Your task to perform on an android device: turn off picture-in-picture Image 0: 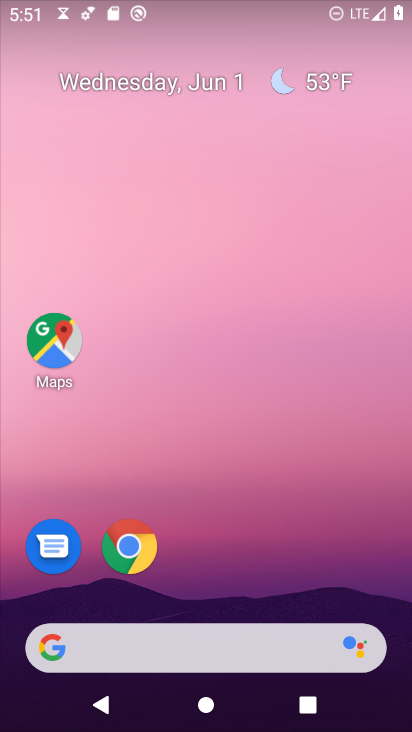
Step 0: drag from (282, 508) to (235, 9)
Your task to perform on an android device: turn off picture-in-picture Image 1: 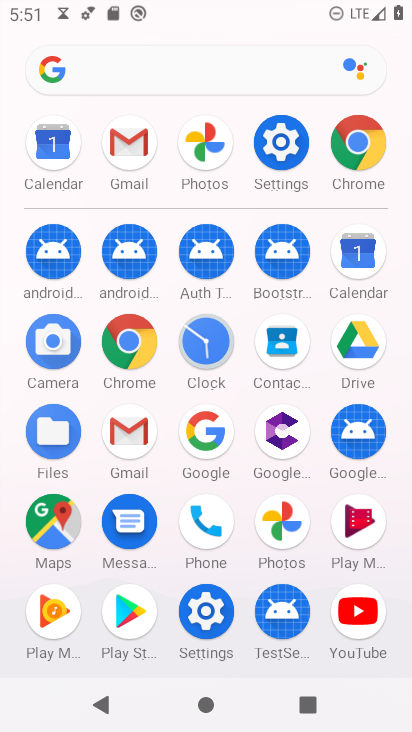
Step 1: drag from (4, 601) to (12, 336)
Your task to perform on an android device: turn off picture-in-picture Image 2: 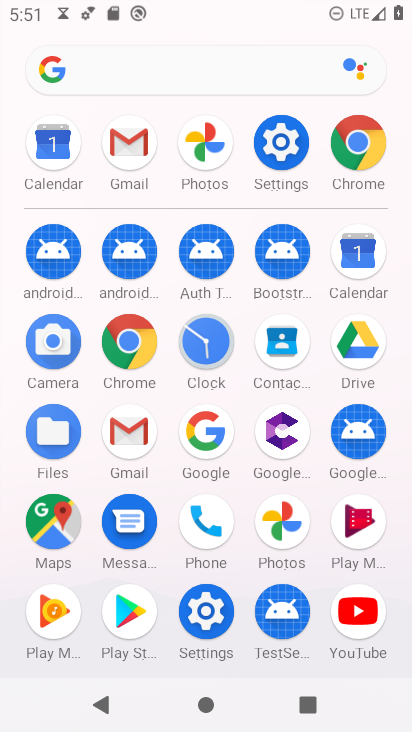
Step 2: click (210, 608)
Your task to perform on an android device: turn off picture-in-picture Image 3: 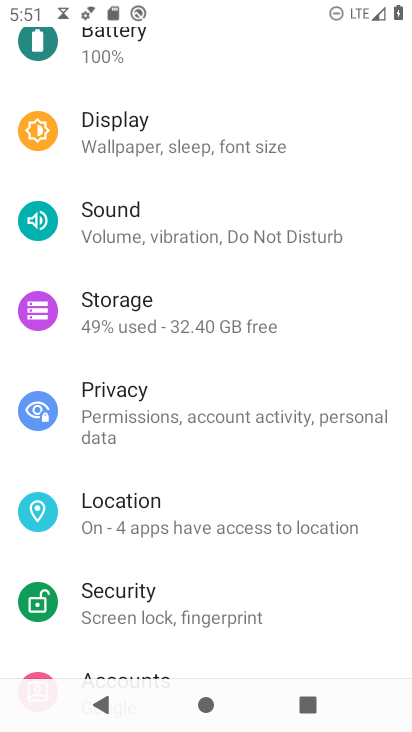
Step 3: drag from (248, 592) to (266, 170)
Your task to perform on an android device: turn off picture-in-picture Image 4: 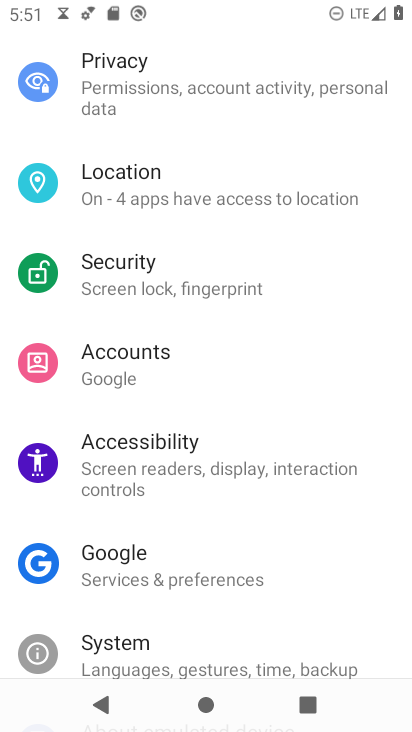
Step 4: drag from (266, 581) to (295, 150)
Your task to perform on an android device: turn off picture-in-picture Image 5: 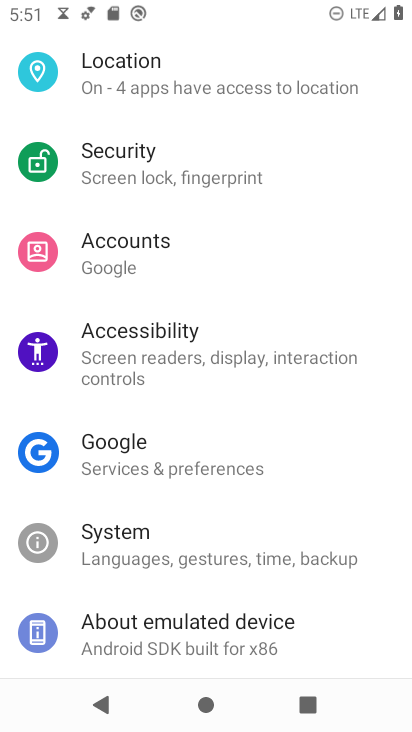
Step 5: drag from (176, 125) to (203, 528)
Your task to perform on an android device: turn off picture-in-picture Image 6: 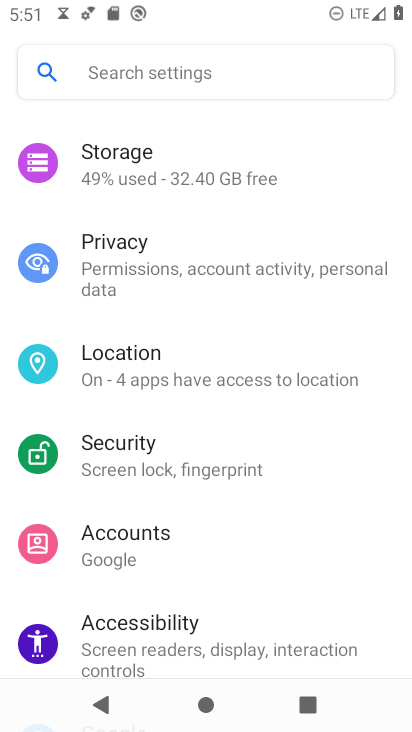
Step 6: drag from (214, 246) to (222, 512)
Your task to perform on an android device: turn off picture-in-picture Image 7: 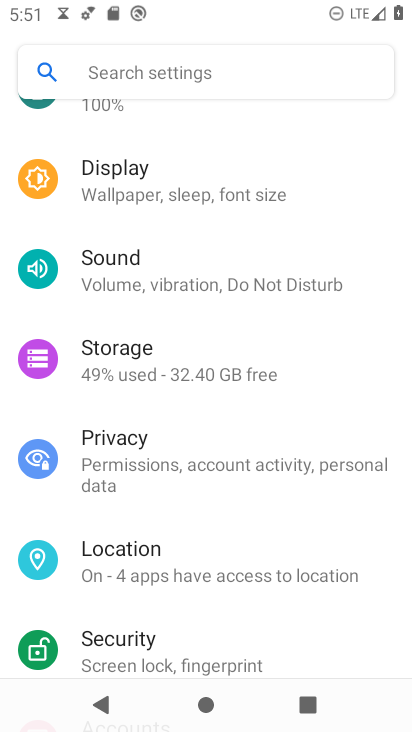
Step 7: drag from (194, 241) to (202, 533)
Your task to perform on an android device: turn off picture-in-picture Image 8: 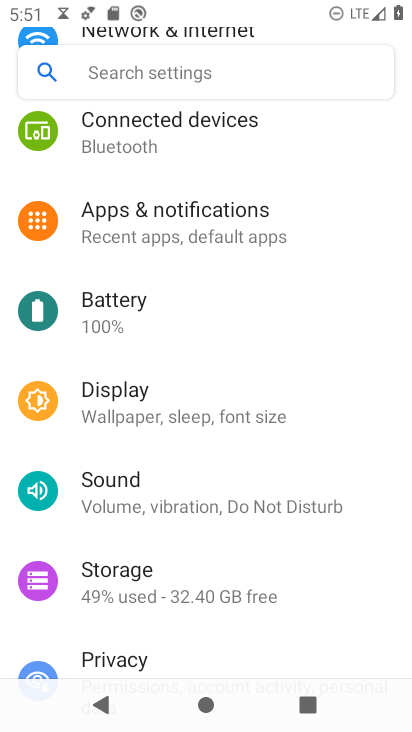
Step 8: click (176, 204)
Your task to perform on an android device: turn off picture-in-picture Image 9: 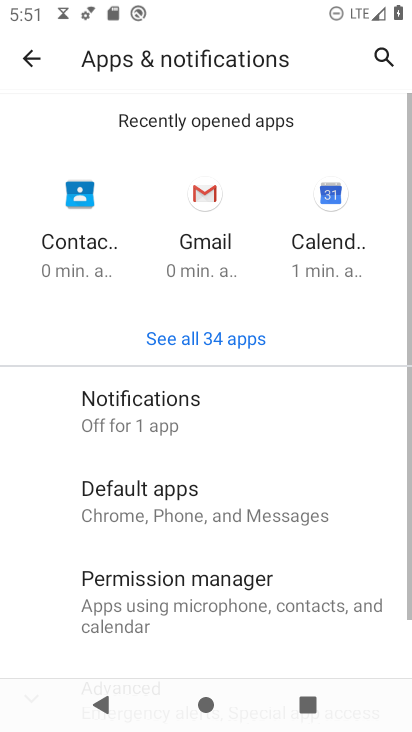
Step 9: click (203, 417)
Your task to perform on an android device: turn off picture-in-picture Image 10: 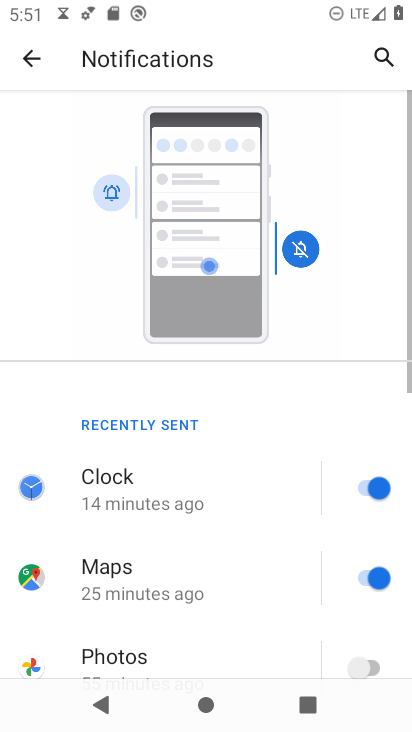
Step 10: drag from (226, 549) to (213, 136)
Your task to perform on an android device: turn off picture-in-picture Image 11: 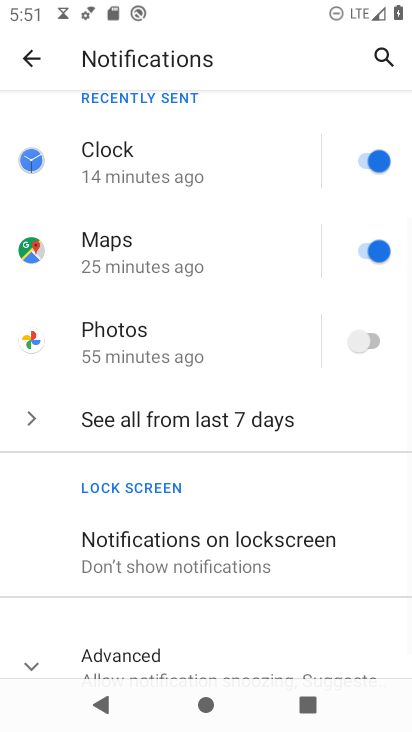
Step 11: drag from (222, 535) to (247, 175)
Your task to perform on an android device: turn off picture-in-picture Image 12: 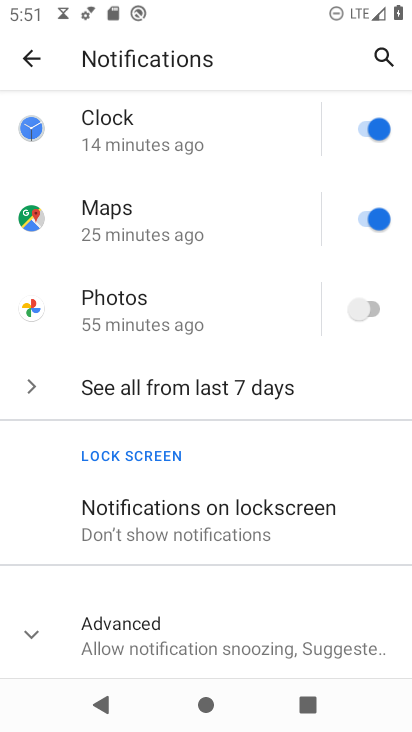
Step 12: click (92, 650)
Your task to perform on an android device: turn off picture-in-picture Image 13: 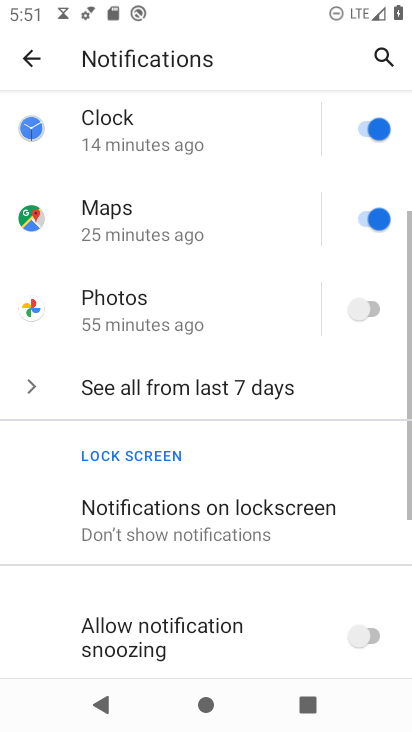
Step 13: drag from (218, 637) to (240, 207)
Your task to perform on an android device: turn off picture-in-picture Image 14: 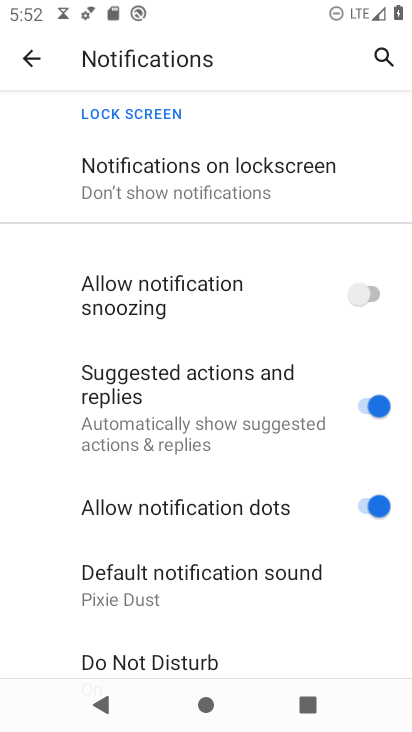
Step 14: drag from (253, 592) to (245, 241)
Your task to perform on an android device: turn off picture-in-picture Image 15: 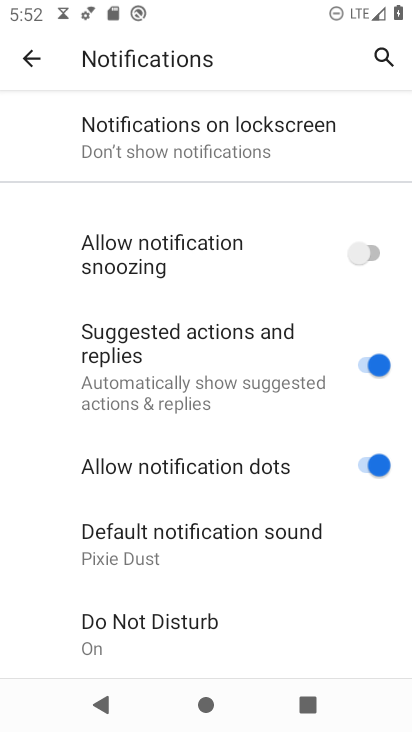
Step 15: drag from (214, 214) to (173, 716)
Your task to perform on an android device: turn off picture-in-picture Image 16: 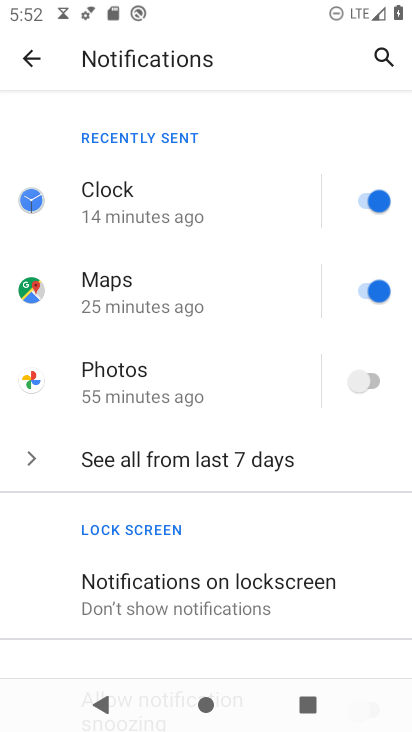
Step 16: drag from (221, 518) to (224, 82)
Your task to perform on an android device: turn off picture-in-picture Image 17: 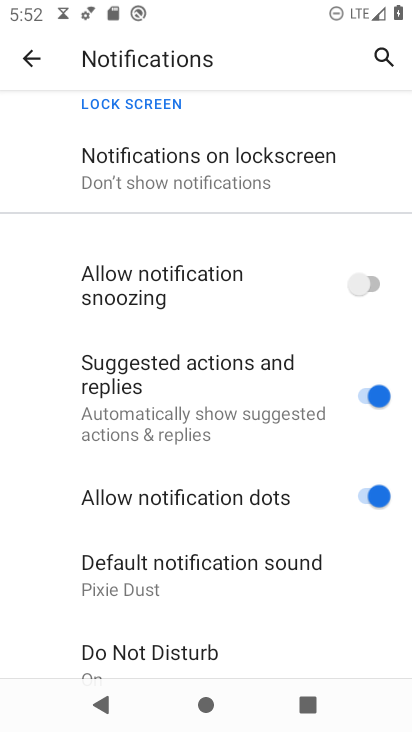
Step 17: drag from (196, 643) to (183, 211)
Your task to perform on an android device: turn off picture-in-picture Image 18: 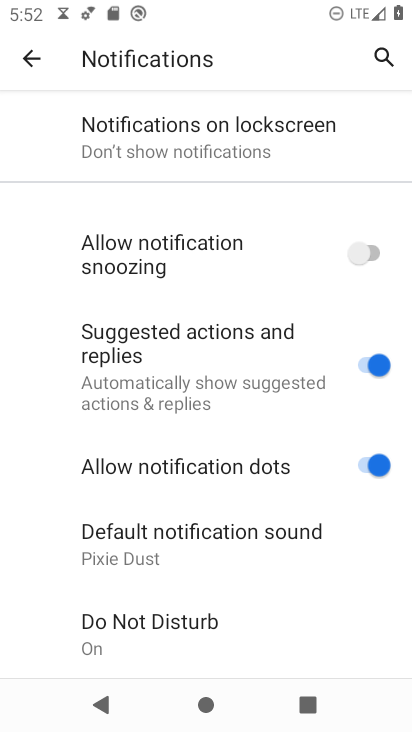
Step 18: drag from (171, 215) to (200, 242)
Your task to perform on an android device: turn off picture-in-picture Image 19: 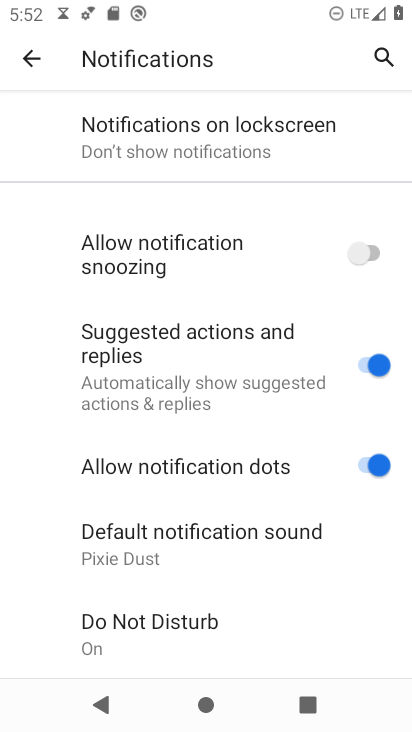
Step 19: click (41, 61)
Your task to perform on an android device: turn off picture-in-picture Image 20: 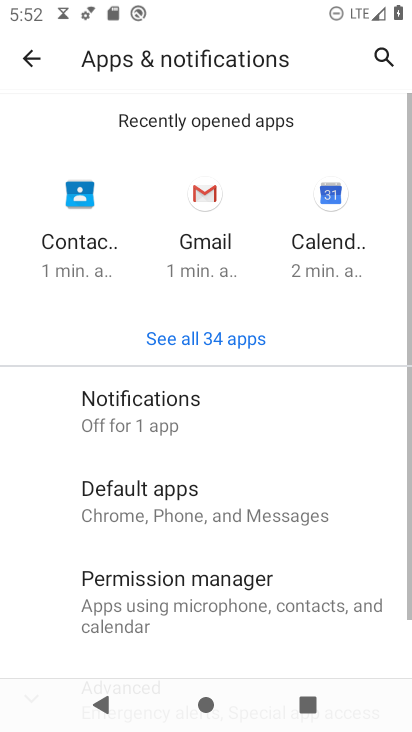
Step 20: drag from (283, 624) to (284, 295)
Your task to perform on an android device: turn off picture-in-picture Image 21: 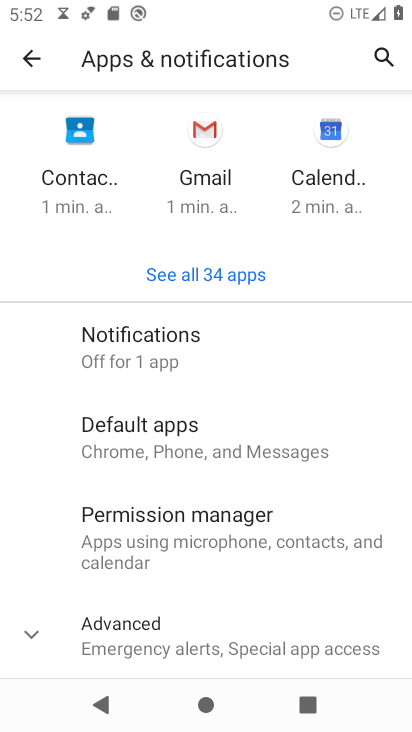
Step 21: click (133, 614)
Your task to perform on an android device: turn off picture-in-picture Image 22: 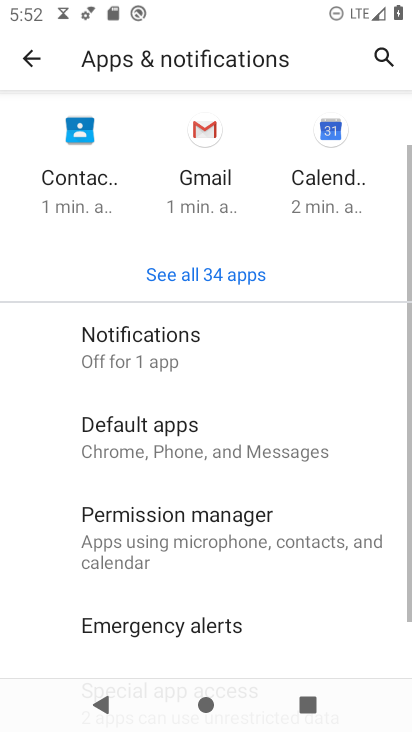
Step 22: drag from (269, 240) to (263, 200)
Your task to perform on an android device: turn off picture-in-picture Image 23: 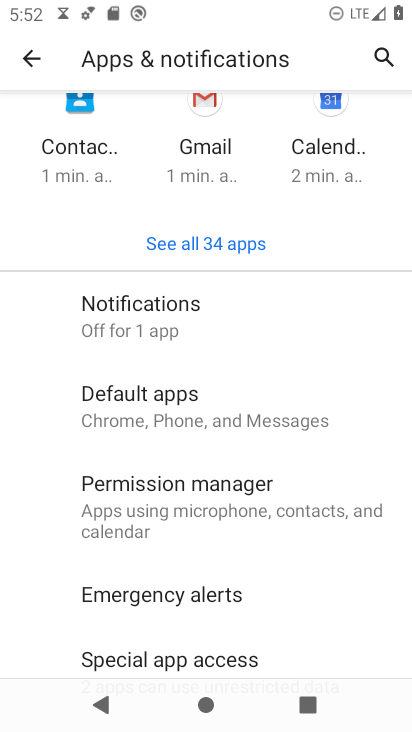
Step 23: drag from (277, 662) to (284, 257)
Your task to perform on an android device: turn off picture-in-picture Image 24: 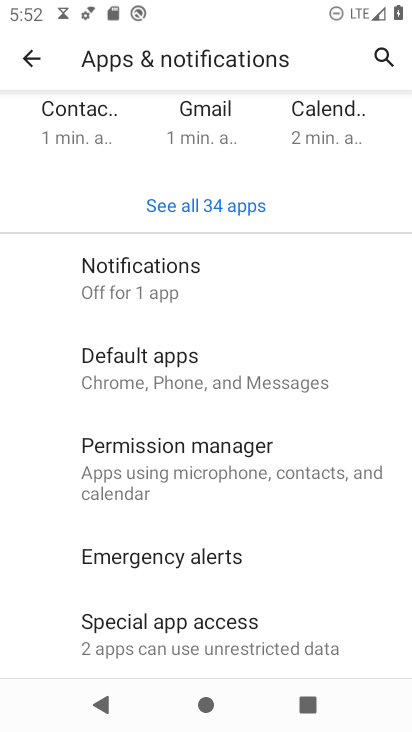
Step 24: click (234, 615)
Your task to perform on an android device: turn off picture-in-picture Image 25: 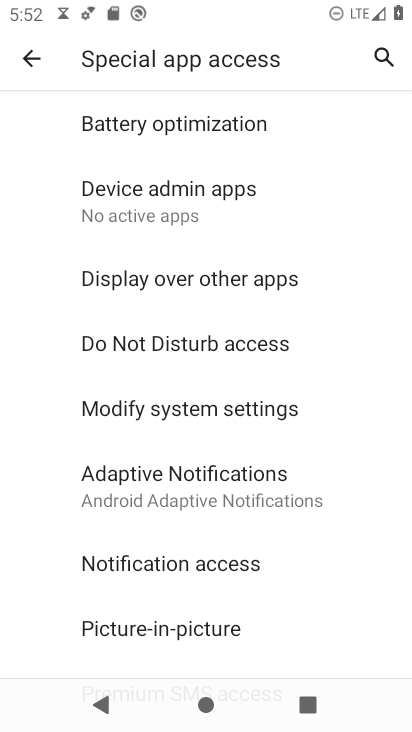
Step 25: drag from (279, 594) to (280, 172)
Your task to perform on an android device: turn off picture-in-picture Image 26: 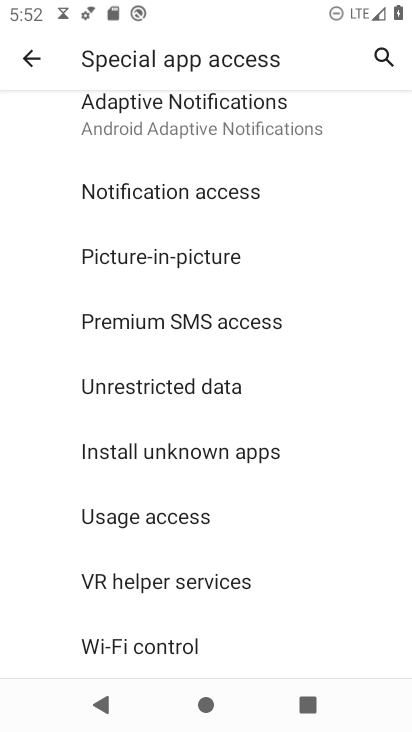
Step 26: drag from (215, 618) to (244, 170)
Your task to perform on an android device: turn off picture-in-picture Image 27: 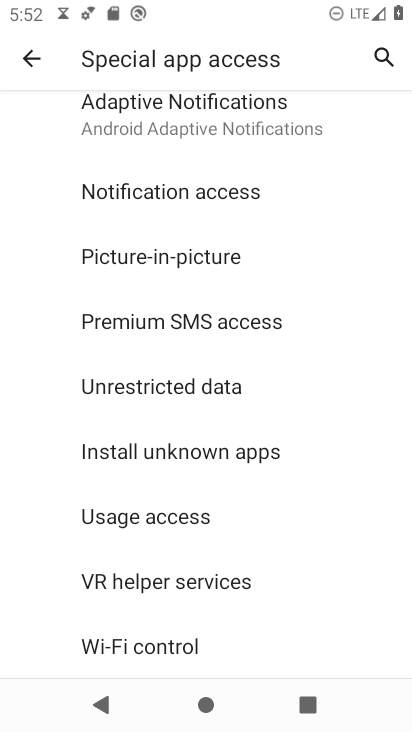
Step 27: click (193, 253)
Your task to perform on an android device: turn off picture-in-picture Image 28: 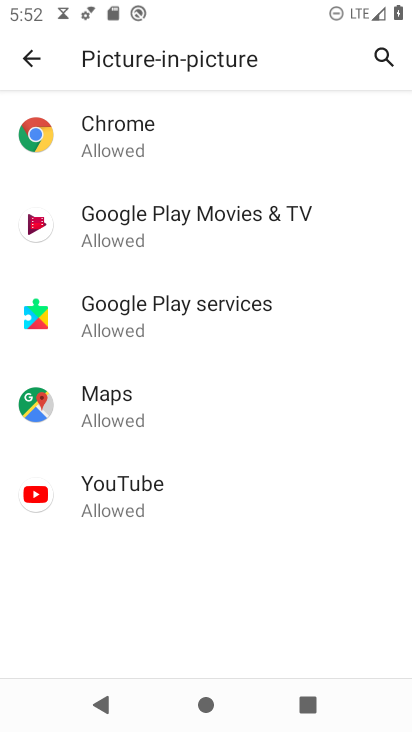
Step 28: click (159, 138)
Your task to perform on an android device: turn off picture-in-picture Image 29: 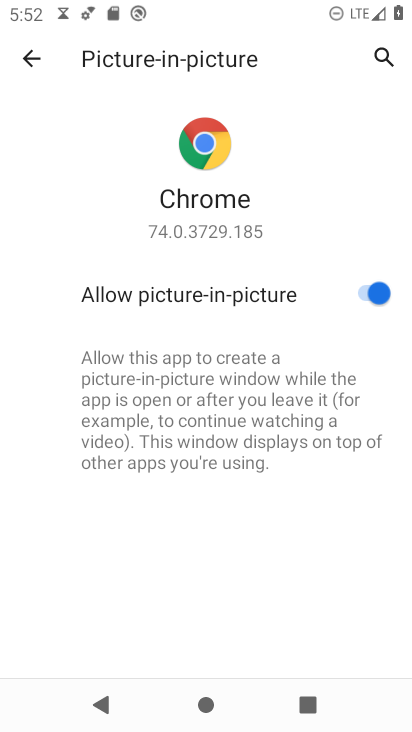
Step 29: click (373, 288)
Your task to perform on an android device: turn off picture-in-picture Image 30: 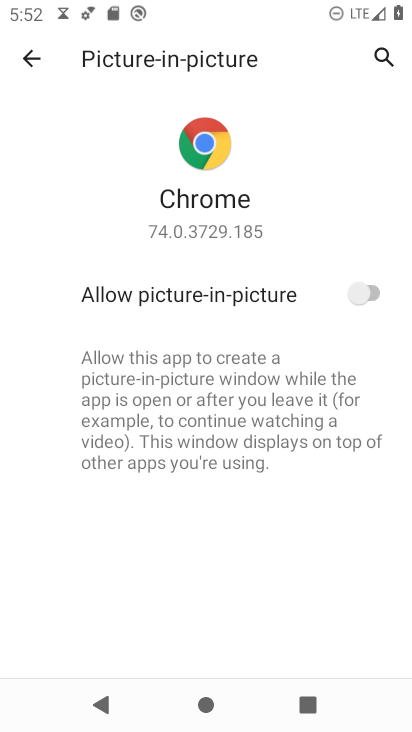
Step 30: click (37, 62)
Your task to perform on an android device: turn off picture-in-picture Image 31: 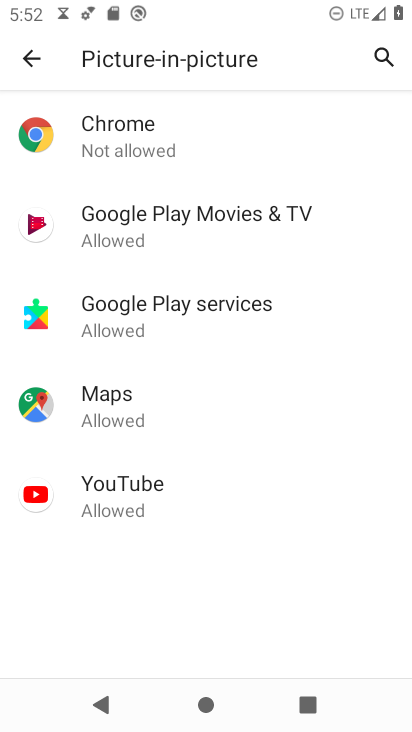
Step 31: click (143, 241)
Your task to perform on an android device: turn off picture-in-picture Image 32: 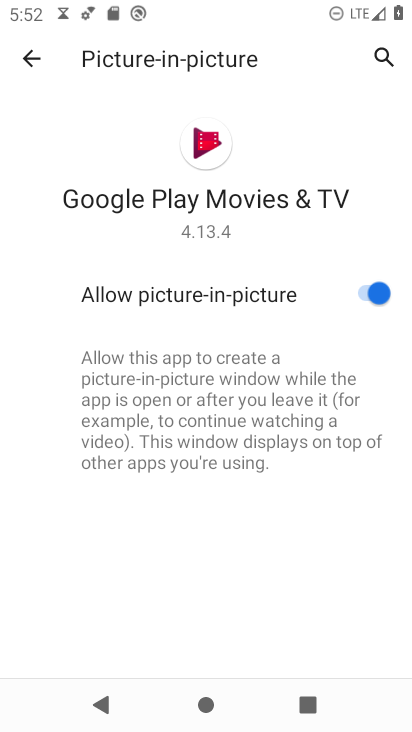
Step 32: click (365, 290)
Your task to perform on an android device: turn off picture-in-picture Image 33: 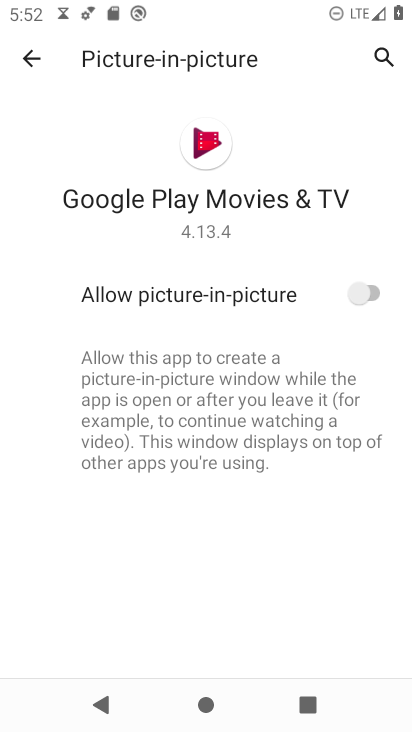
Step 33: click (40, 62)
Your task to perform on an android device: turn off picture-in-picture Image 34: 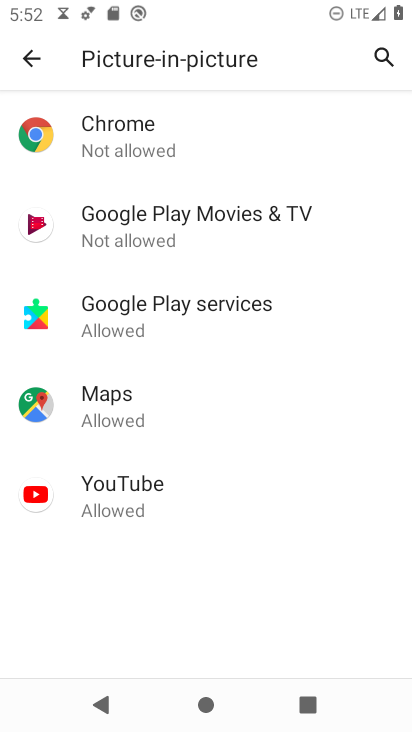
Step 34: click (105, 314)
Your task to perform on an android device: turn off picture-in-picture Image 35: 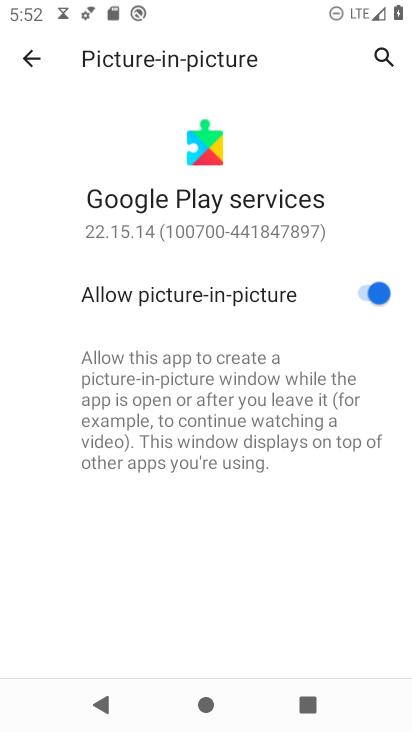
Step 35: click (364, 292)
Your task to perform on an android device: turn off picture-in-picture Image 36: 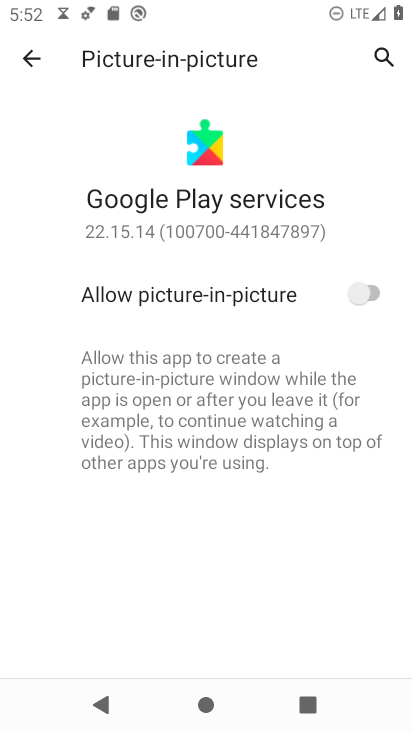
Step 36: click (27, 65)
Your task to perform on an android device: turn off picture-in-picture Image 37: 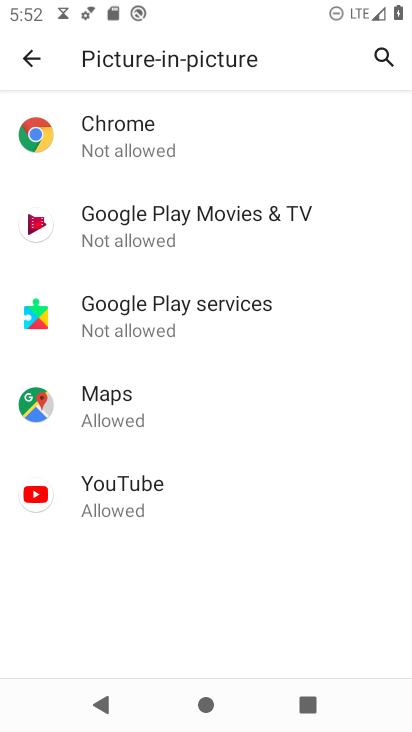
Step 37: click (112, 411)
Your task to perform on an android device: turn off picture-in-picture Image 38: 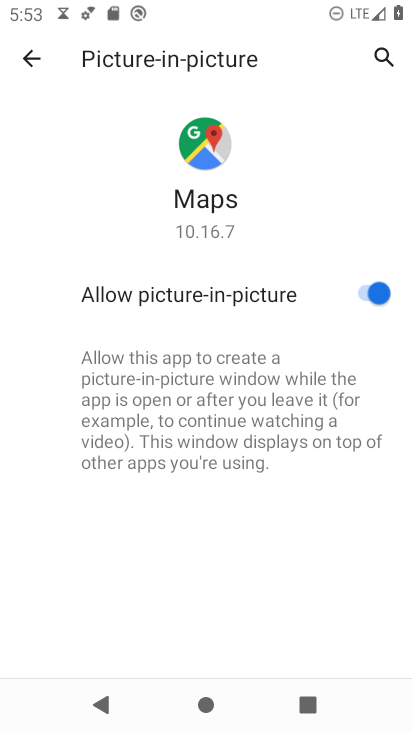
Step 38: click (363, 297)
Your task to perform on an android device: turn off picture-in-picture Image 39: 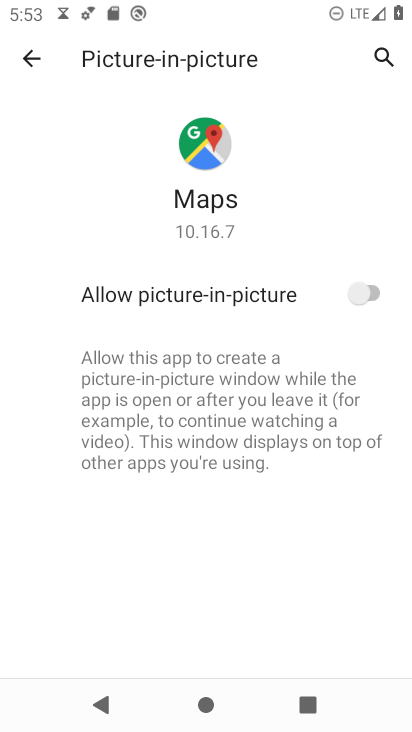
Step 39: click (33, 62)
Your task to perform on an android device: turn off picture-in-picture Image 40: 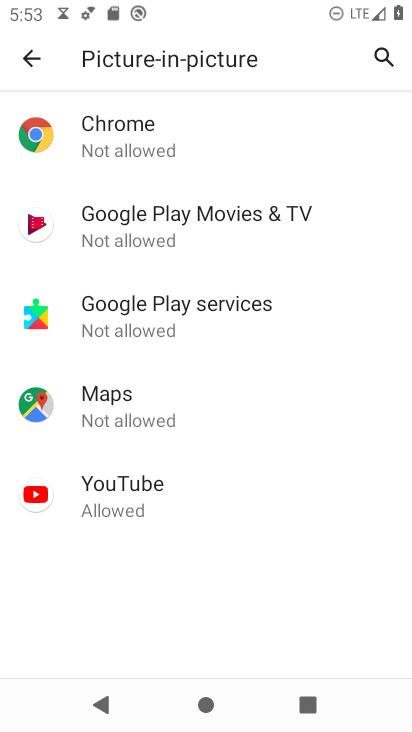
Step 40: click (125, 480)
Your task to perform on an android device: turn off picture-in-picture Image 41: 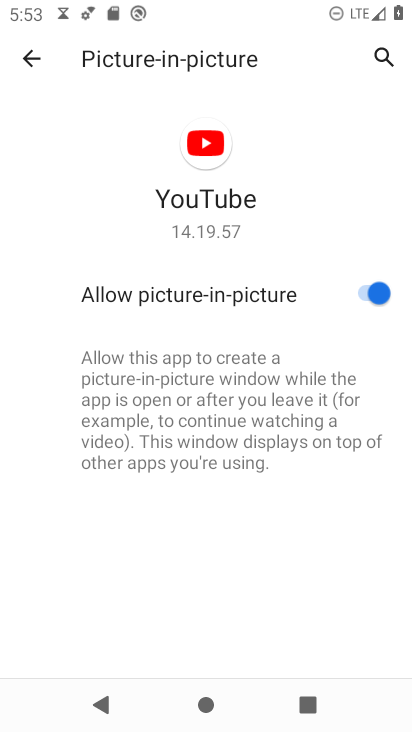
Step 41: click (364, 287)
Your task to perform on an android device: turn off picture-in-picture Image 42: 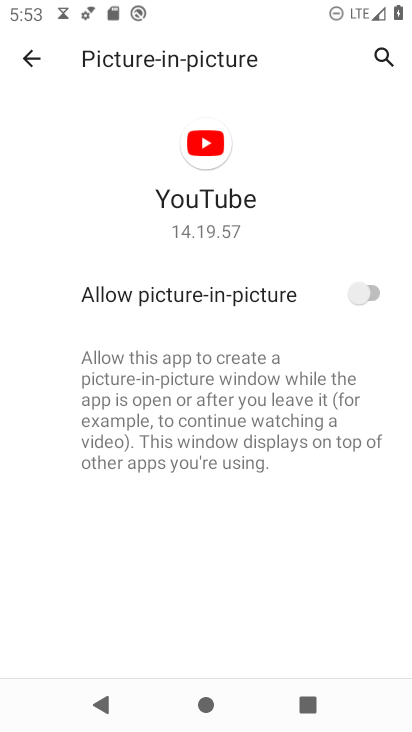
Step 42: task complete